Your task to perform on an android device: Show me productivity apps on the Play Store Image 0: 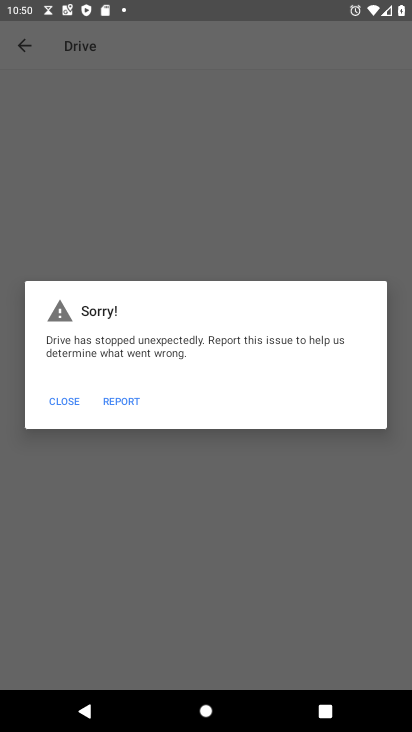
Step 0: press home button
Your task to perform on an android device: Show me productivity apps on the Play Store Image 1: 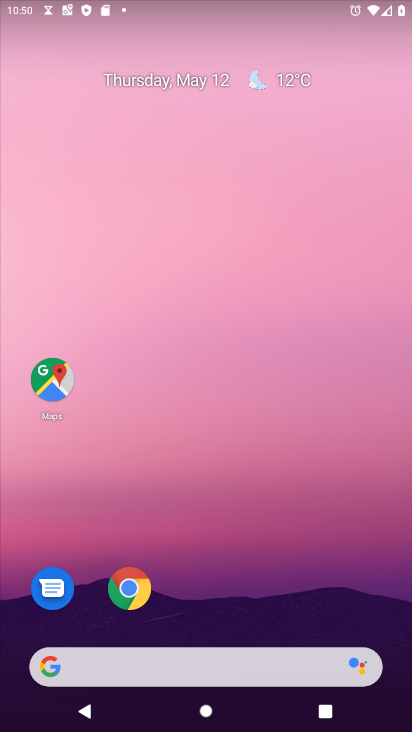
Step 1: drag from (249, 589) to (173, 54)
Your task to perform on an android device: Show me productivity apps on the Play Store Image 2: 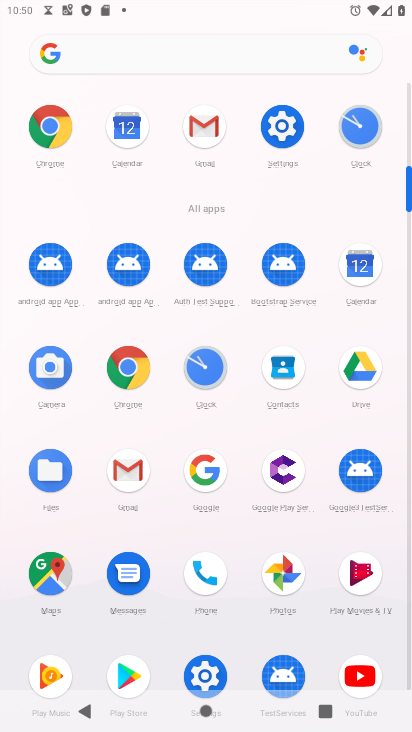
Step 2: drag from (176, 526) to (171, 288)
Your task to perform on an android device: Show me productivity apps on the Play Store Image 3: 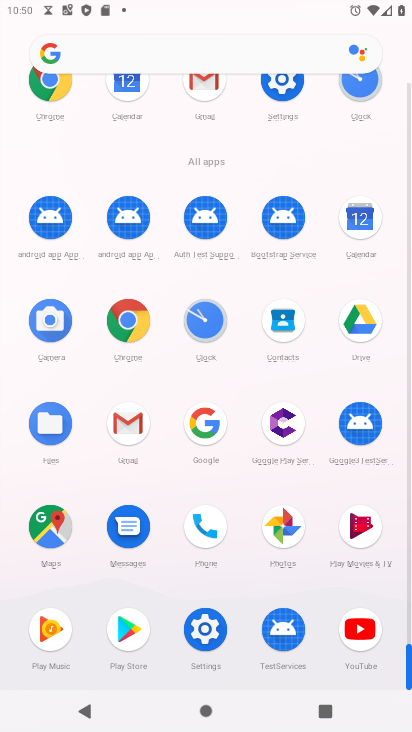
Step 3: click (129, 633)
Your task to perform on an android device: Show me productivity apps on the Play Store Image 4: 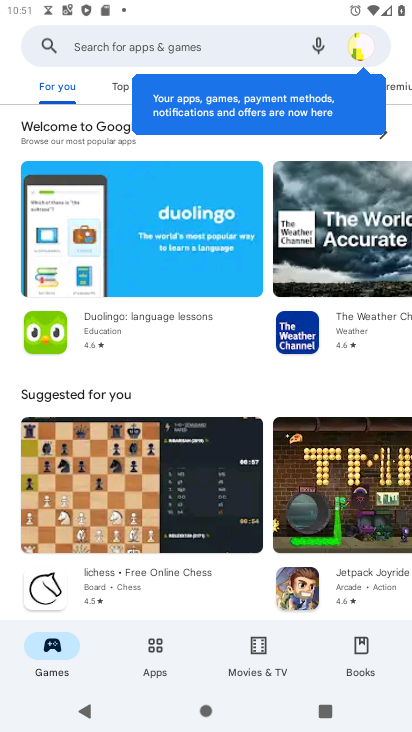
Step 4: click (162, 653)
Your task to perform on an android device: Show me productivity apps on the Play Store Image 5: 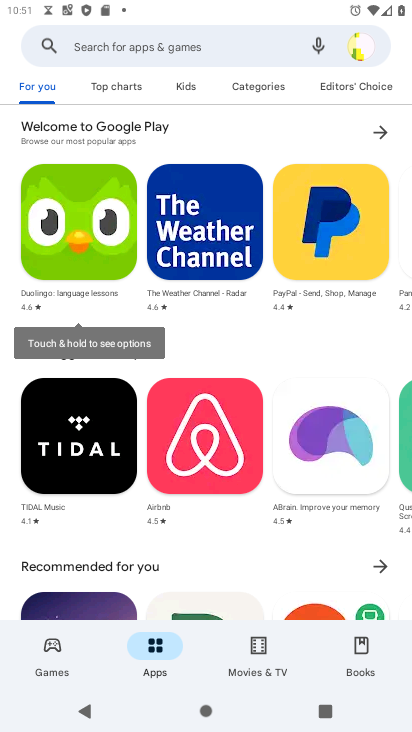
Step 5: click (269, 87)
Your task to perform on an android device: Show me productivity apps on the Play Store Image 6: 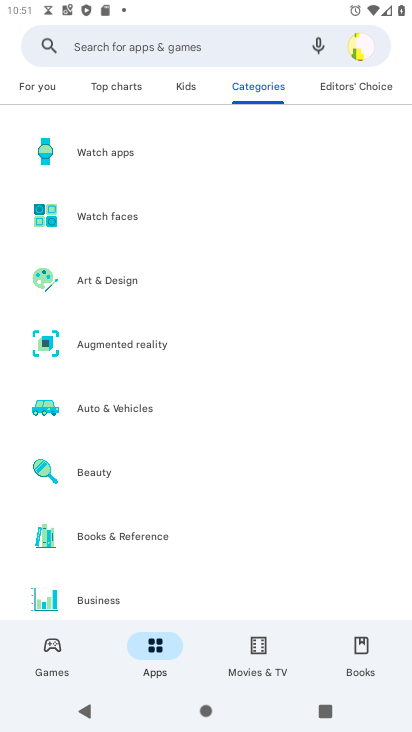
Step 6: drag from (101, 313) to (112, 227)
Your task to perform on an android device: Show me productivity apps on the Play Store Image 7: 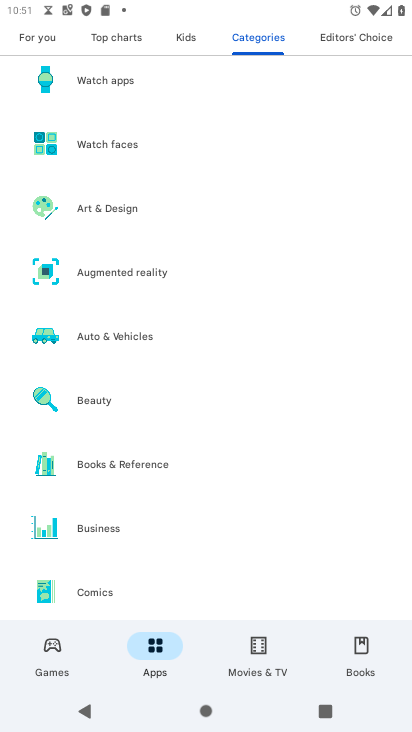
Step 7: drag from (99, 304) to (123, 200)
Your task to perform on an android device: Show me productivity apps on the Play Store Image 8: 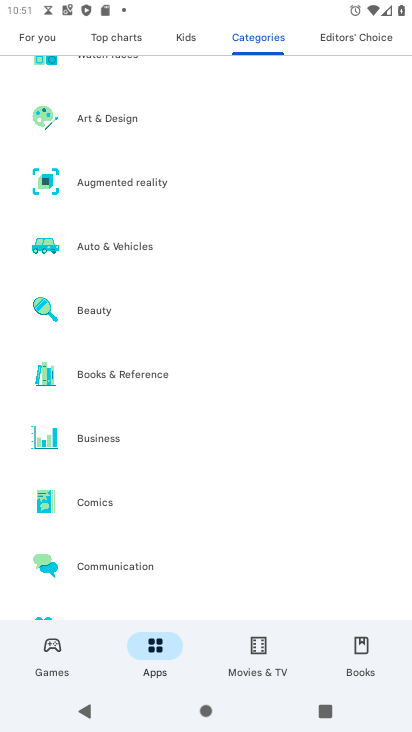
Step 8: drag from (117, 281) to (152, 190)
Your task to perform on an android device: Show me productivity apps on the Play Store Image 9: 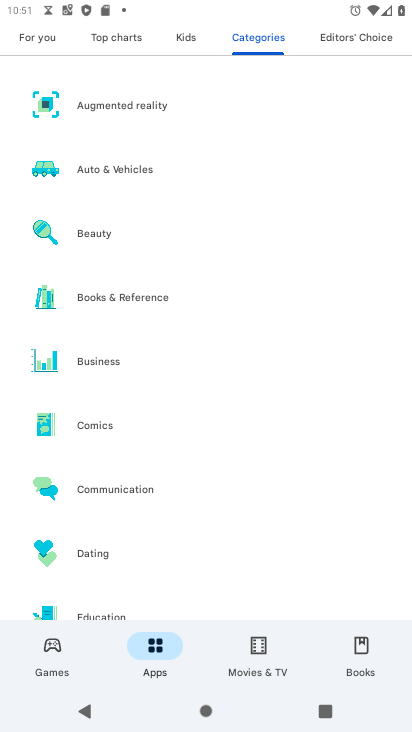
Step 9: drag from (99, 322) to (135, 228)
Your task to perform on an android device: Show me productivity apps on the Play Store Image 10: 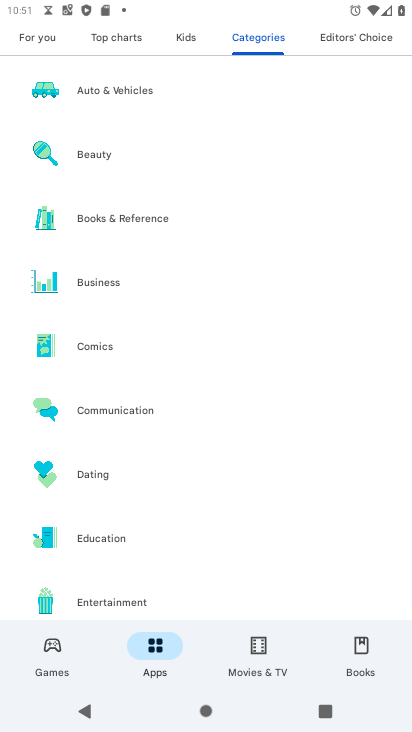
Step 10: drag from (110, 325) to (150, 233)
Your task to perform on an android device: Show me productivity apps on the Play Store Image 11: 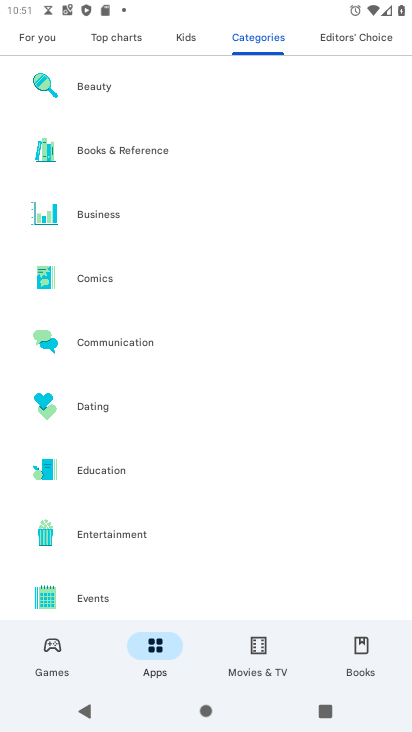
Step 11: drag from (104, 377) to (159, 286)
Your task to perform on an android device: Show me productivity apps on the Play Store Image 12: 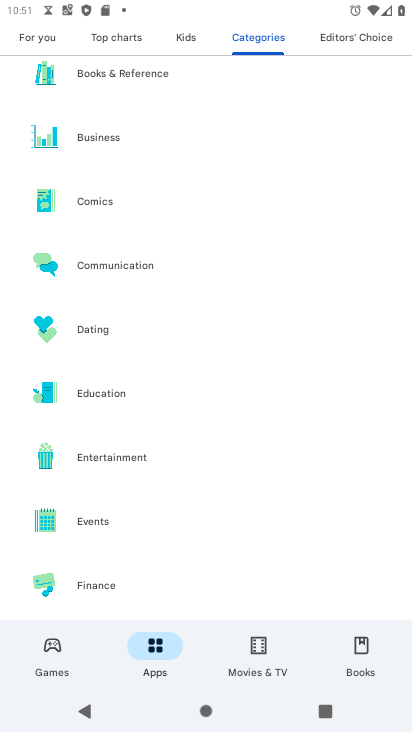
Step 12: drag from (92, 360) to (166, 266)
Your task to perform on an android device: Show me productivity apps on the Play Store Image 13: 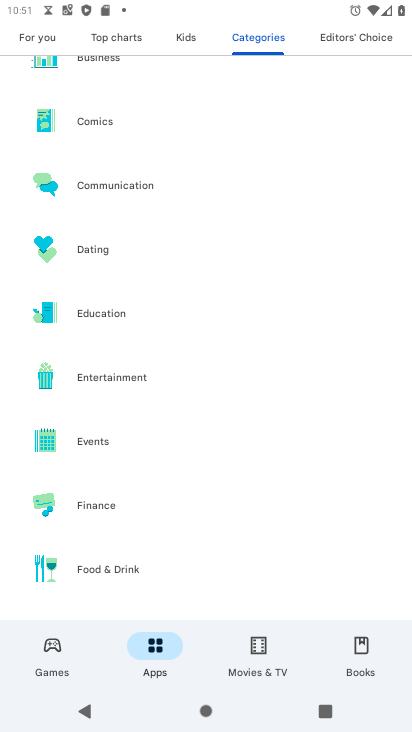
Step 13: drag from (92, 352) to (161, 262)
Your task to perform on an android device: Show me productivity apps on the Play Store Image 14: 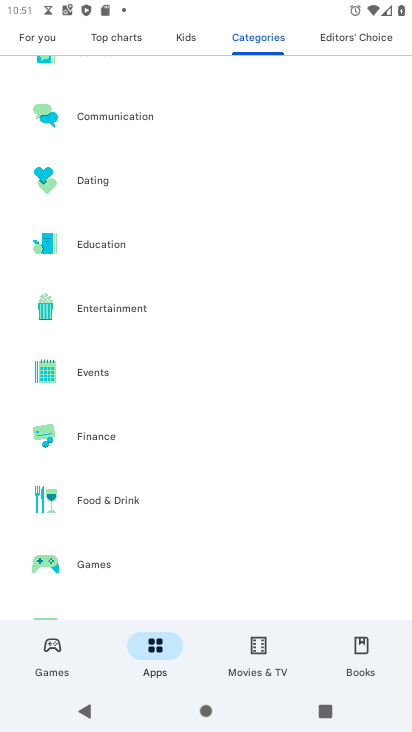
Step 14: drag from (87, 350) to (157, 269)
Your task to perform on an android device: Show me productivity apps on the Play Store Image 15: 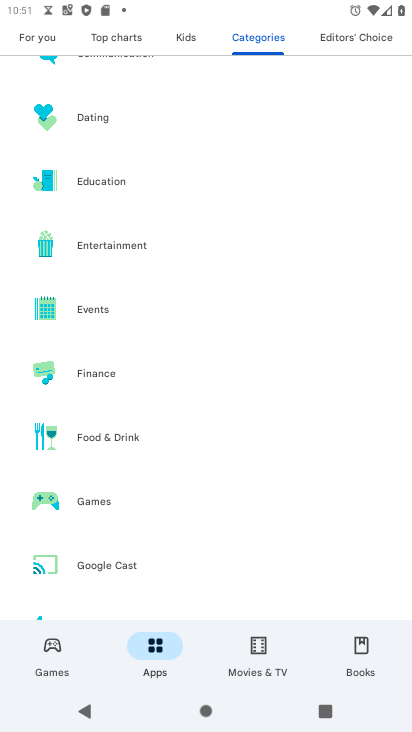
Step 15: drag from (78, 414) to (161, 310)
Your task to perform on an android device: Show me productivity apps on the Play Store Image 16: 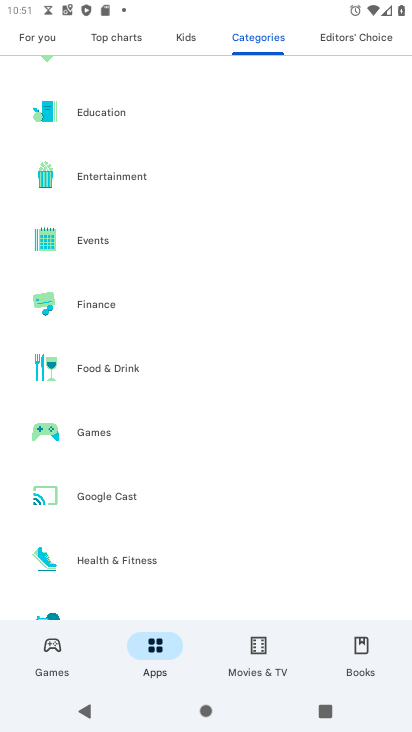
Step 16: drag from (83, 401) to (191, 283)
Your task to perform on an android device: Show me productivity apps on the Play Store Image 17: 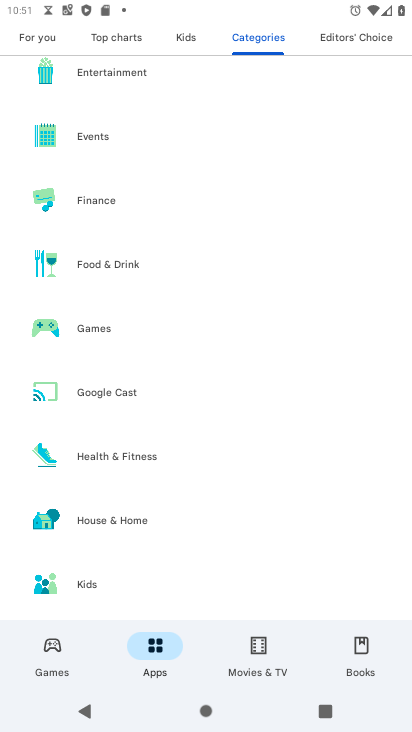
Step 17: drag from (68, 478) to (155, 384)
Your task to perform on an android device: Show me productivity apps on the Play Store Image 18: 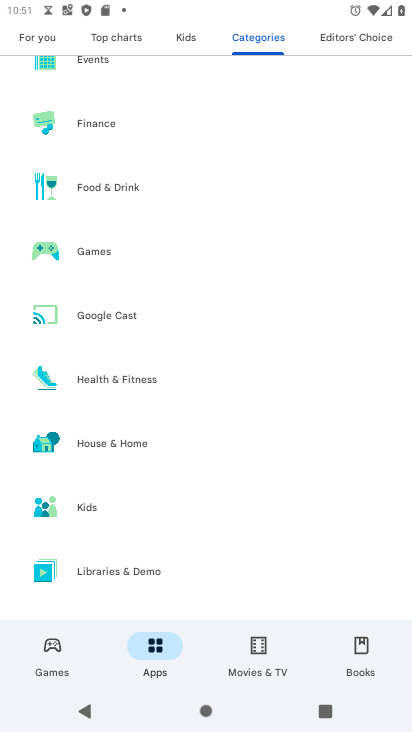
Step 18: drag from (78, 481) to (203, 313)
Your task to perform on an android device: Show me productivity apps on the Play Store Image 19: 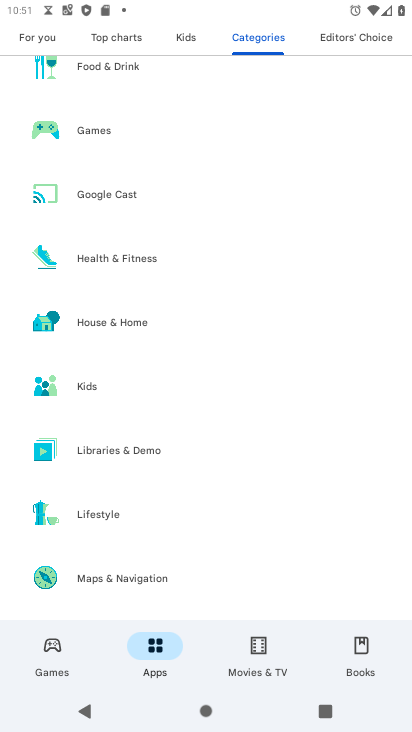
Step 19: drag from (73, 488) to (165, 374)
Your task to perform on an android device: Show me productivity apps on the Play Store Image 20: 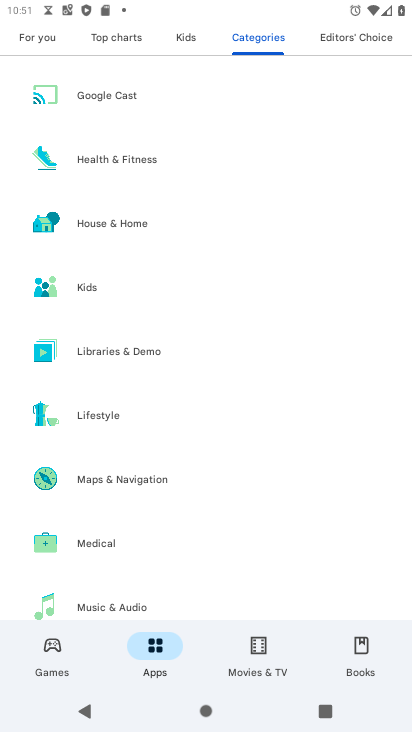
Step 20: drag from (74, 519) to (181, 391)
Your task to perform on an android device: Show me productivity apps on the Play Store Image 21: 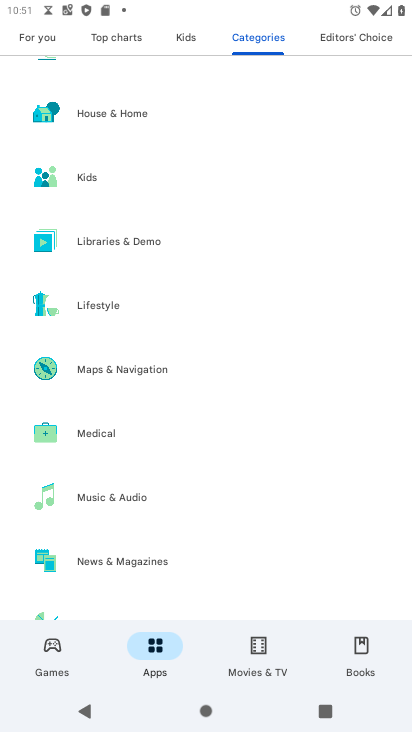
Step 21: drag from (83, 527) to (179, 408)
Your task to perform on an android device: Show me productivity apps on the Play Store Image 22: 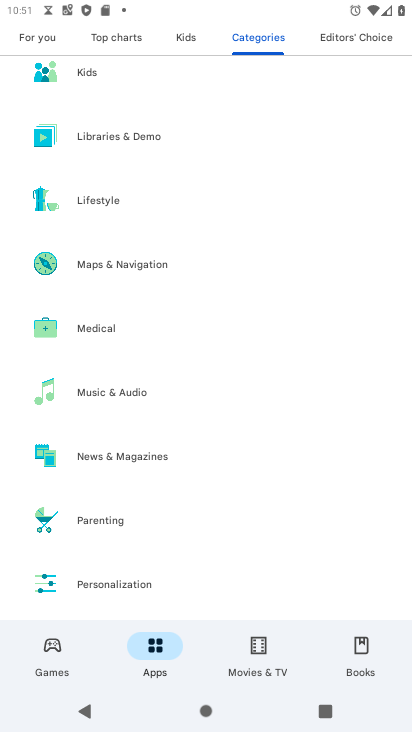
Step 22: drag from (71, 495) to (148, 396)
Your task to perform on an android device: Show me productivity apps on the Play Store Image 23: 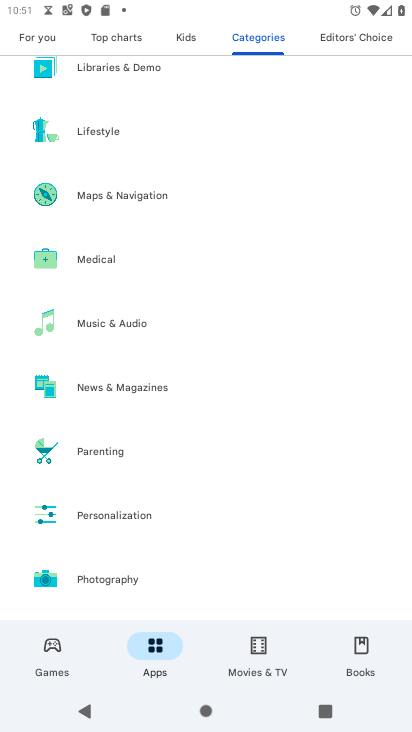
Step 23: drag from (75, 535) to (192, 392)
Your task to perform on an android device: Show me productivity apps on the Play Store Image 24: 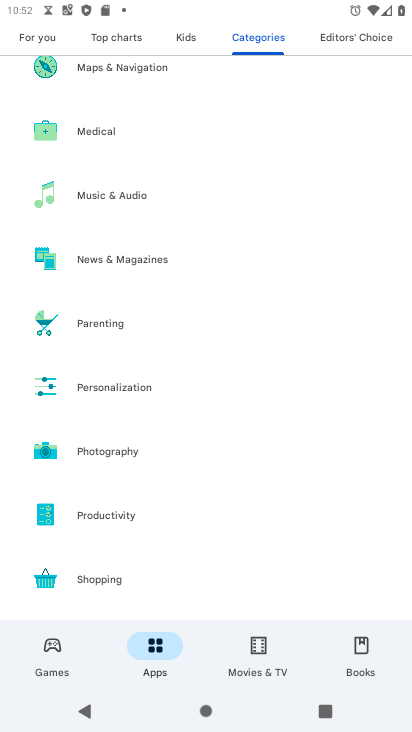
Step 24: click (122, 520)
Your task to perform on an android device: Show me productivity apps on the Play Store Image 25: 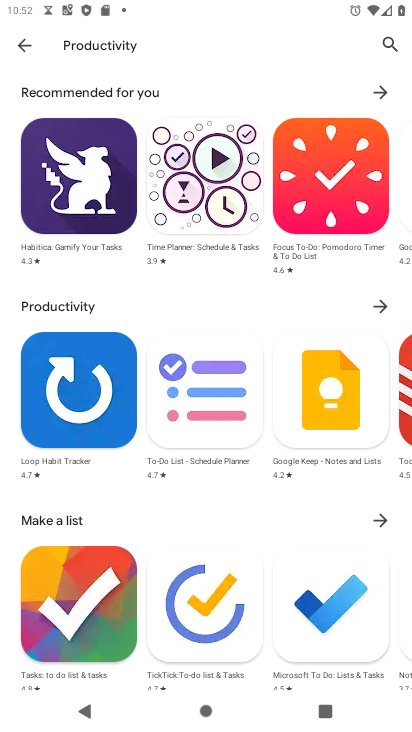
Step 25: task complete